Your task to perform on an android device: delete browsing data in the chrome app Image 0: 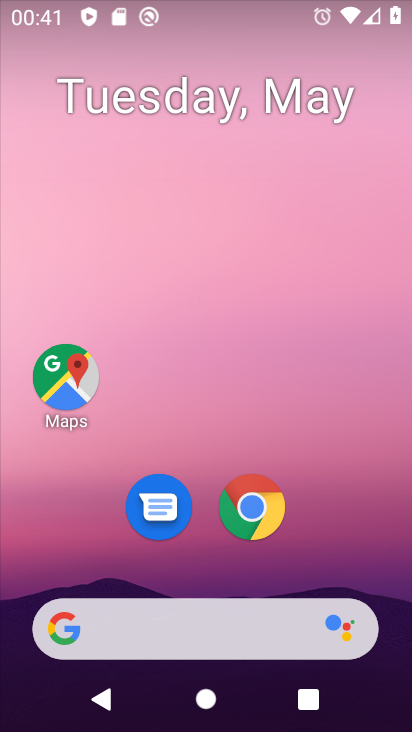
Step 0: click (255, 513)
Your task to perform on an android device: delete browsing data in the chrome app Image 1: 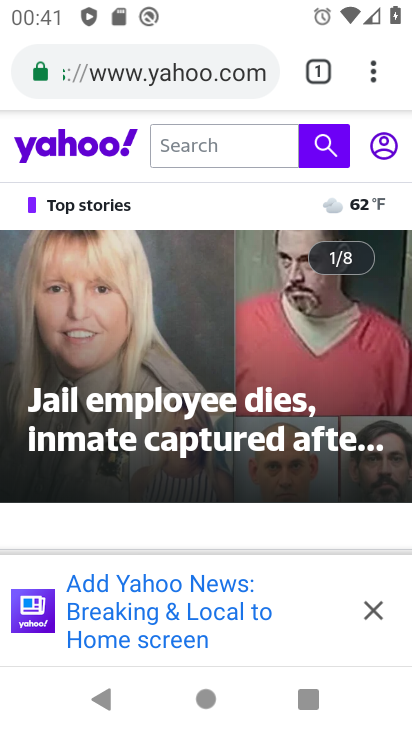
Step 1: click (369, 75)
Your task to perform on an android device: delete browsing data in the chrome app Image 2: 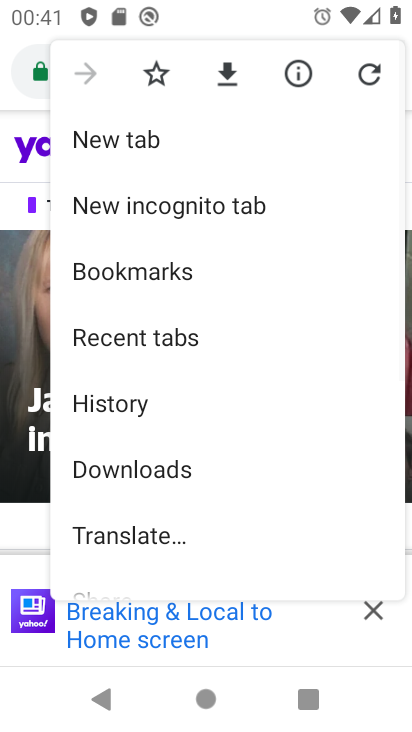
Step 2: click (139, 404)
Your task to perform on an android device: delete browsing data in the chrome app Image 3: 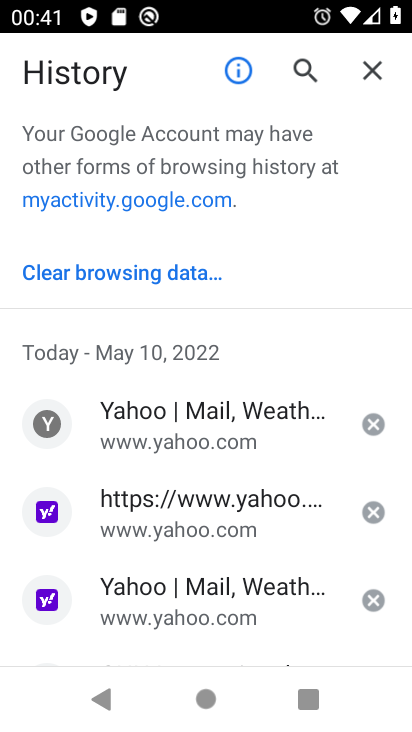
Step 3: click (95, 276)
Your task to perform on an android device: delete browsing data in the chrome app Image 4: 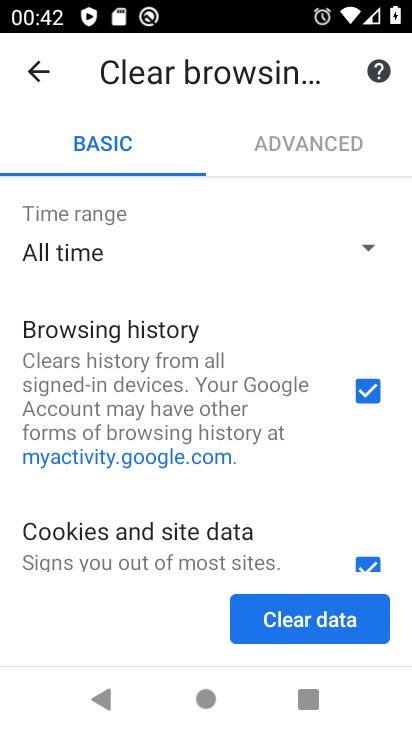
Step 4: click (274, 623)
Your task to perform on an android device: delete browsing data in the chrome app Image 5: 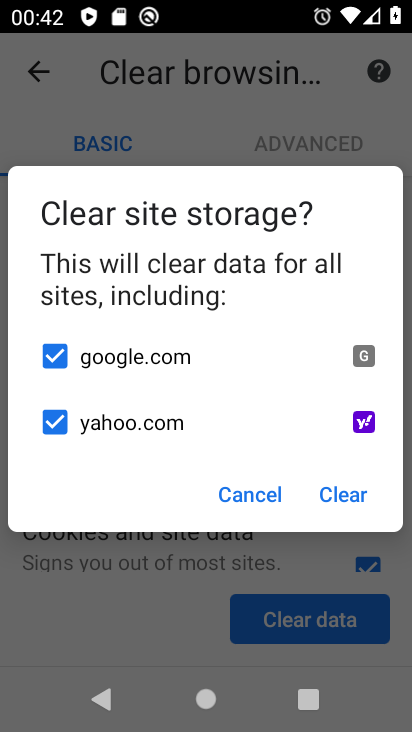
Step 5: click (360, 490)
Your task to perform on an android device: delete browsing data in the chrome app Image 6: 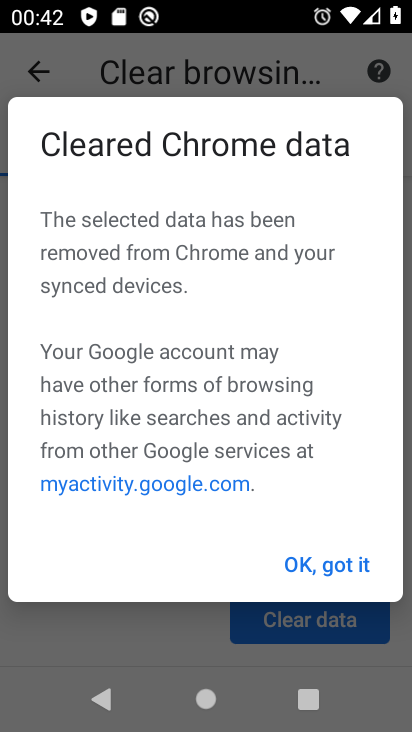
Step 6: click (318, 572)
Your task to perform on an android device: delete browsing data in the chrome app Image 7: 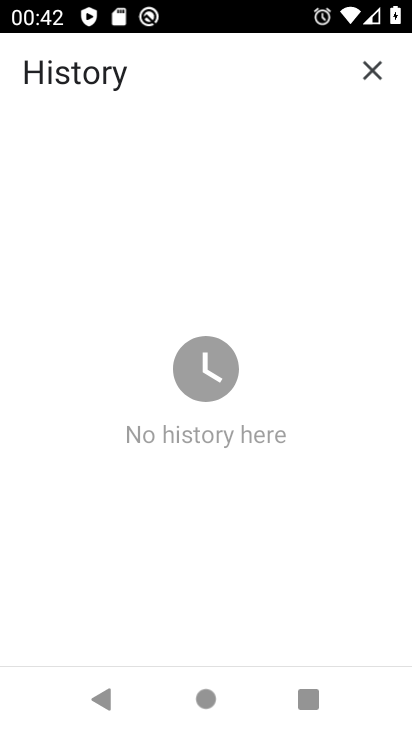
Step 7: task complete